Your task to perform on an android device: Turn on the flashlight Image 0: 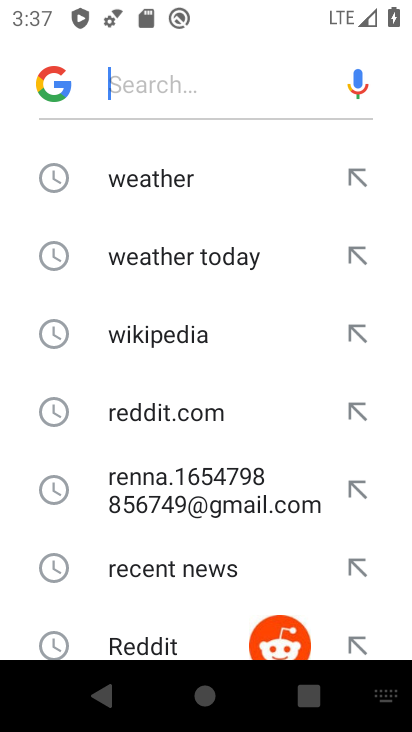
Step 0: press home button
Your task to perform on an android device: Turn on the flashlight Image 1: 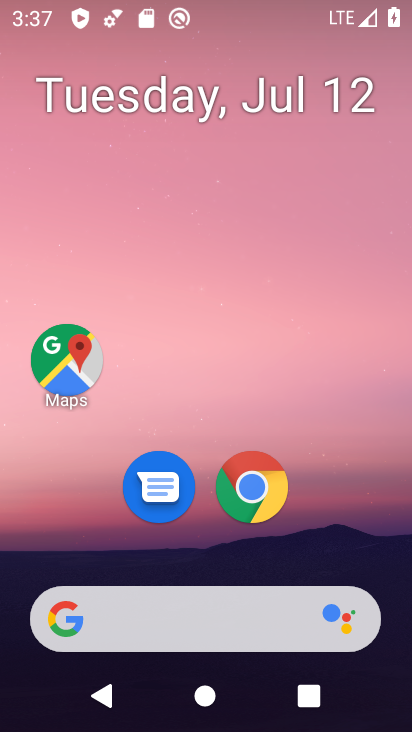
Step 1: task complete